Your task to perform on an android device: turn on javascript in the chrome app Image 0: 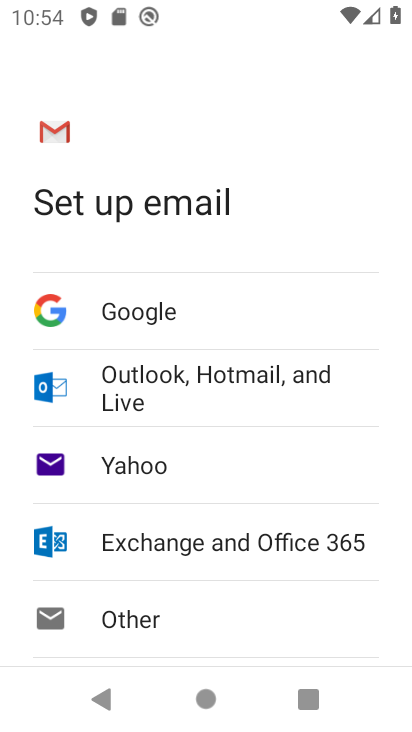
Step 0: press back button
Your task to perform on an android device: turn on javascript in the chrome app Image 1: 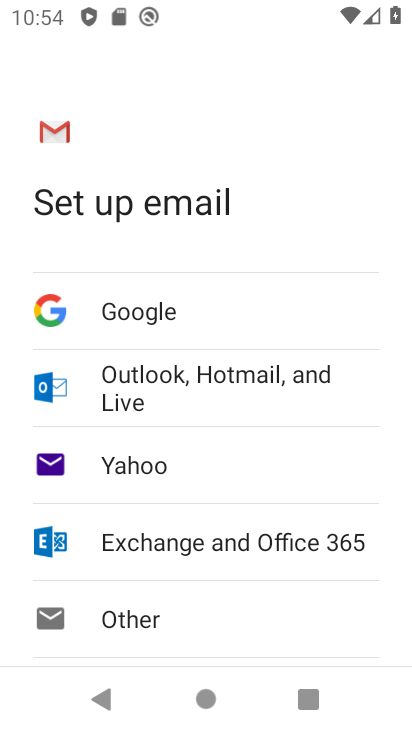
Step 1: press back button
Your task to perform on an android device: turn on javascript in the chrome app Image 2: 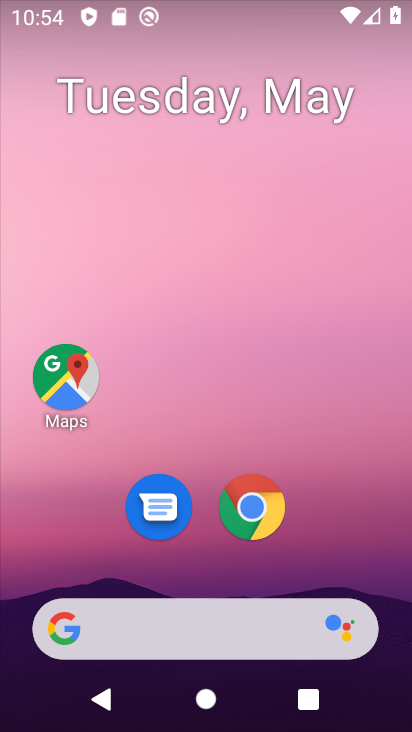
Step 2: drag from (268, 715) to (182, 231)
Your task to perform on an android device: turn on javascript in the chrome app Image 3: 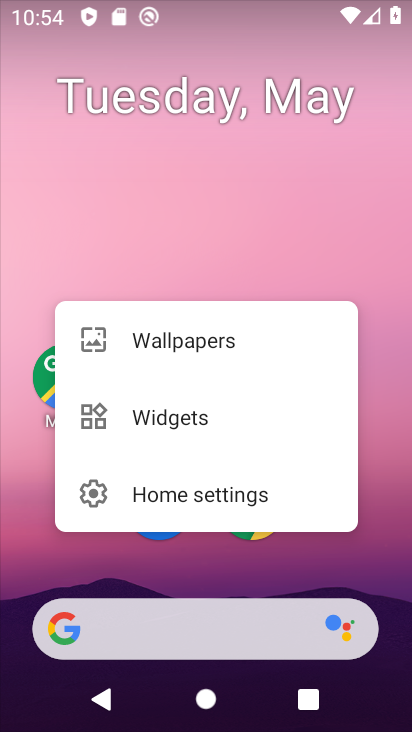
Step 3: click (133, 192)
Your task to perform on an android device: turn on javascript in the chrome app Image 4: 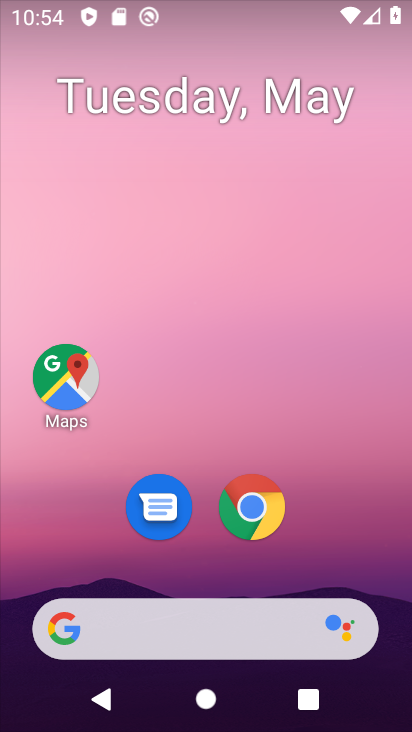
Step 4: drag from (245, 535) to (139, 32)
Your task to perform on an android device: turn on javascript in the chrome app Image 5: 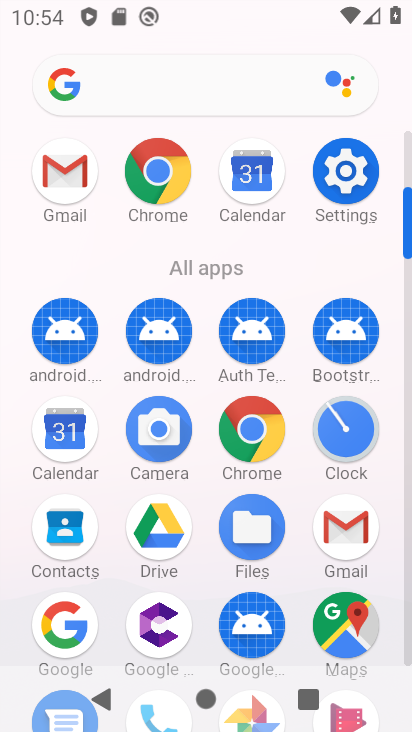
Step 5: click (157, 184)
Your task to perform on an android device: turn on javascript in the chrome app Image 6: 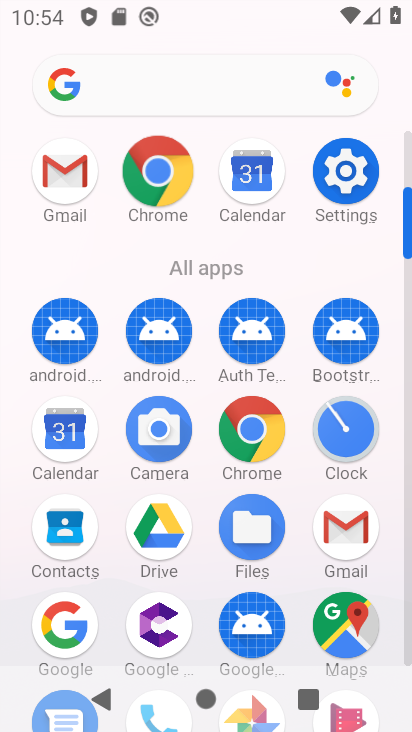
Step 6: click (158, 183)
Your task to perform on an android device: turn on javascript in the chrome app Image 7: 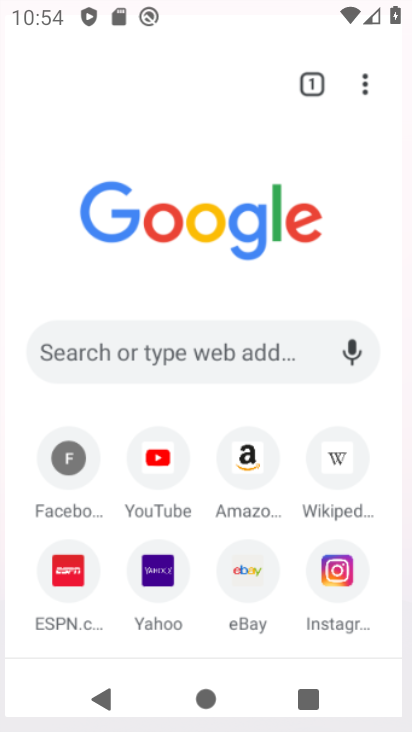
Step 7: click (160, 183)
Your task to perform on an android device: turn on javascript in the chrome app Image 8: 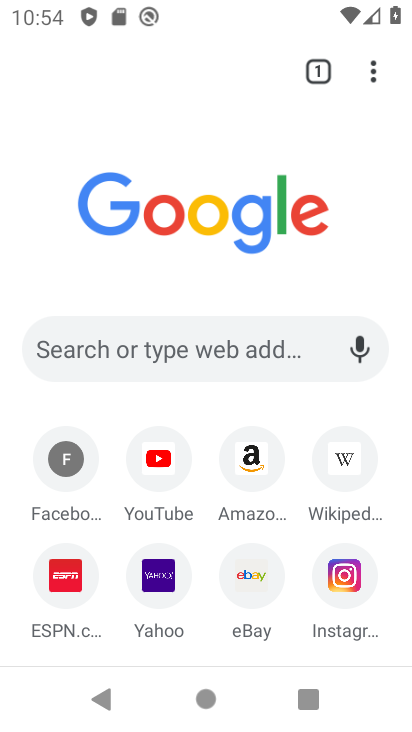
Step 8: drag from (375, 77) to (104, 512)
Your task to perform on an android device: turn on javascript in the chrome app Image 9: 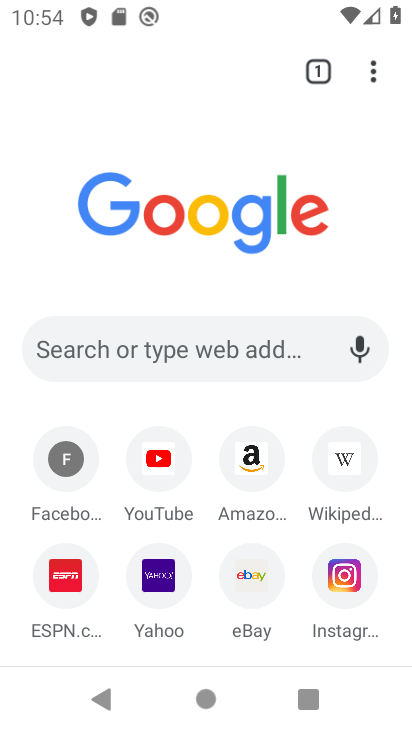
Step 9: click (103, 512)
Your task to perform on an android device: turn on javascript in the chrome app Image 10: 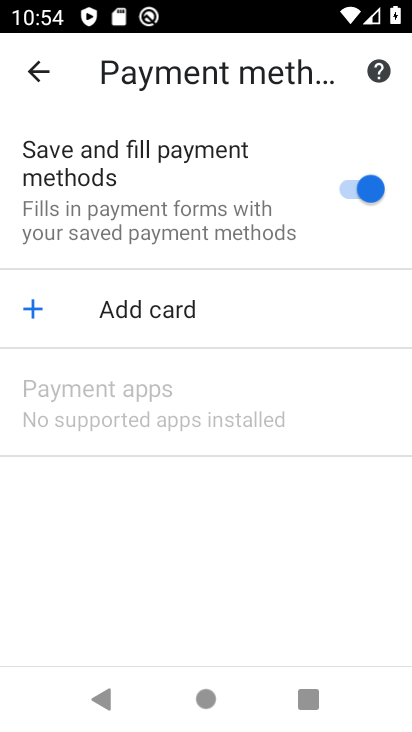
Step 10: click (47, 66)
Your task to perform on an android device: turn on javascript in the chrome app Image 11: 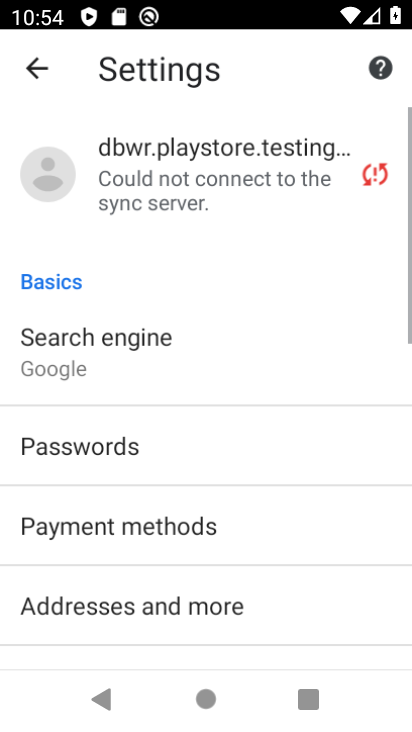
Step 11: click (39, 61)
Your task to perform on an android device: turn on javascript in the chrome app Image 12: 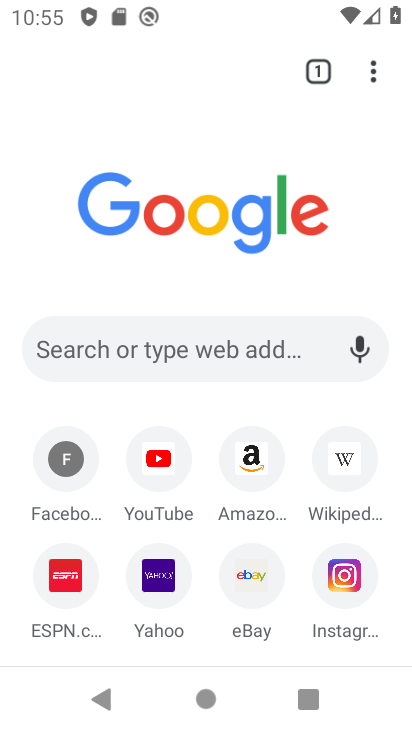
Step 12: drag from (373, 82) to (111, 509)
Your task to perform on an android device: turn on javascript in the chrome app Image 13: 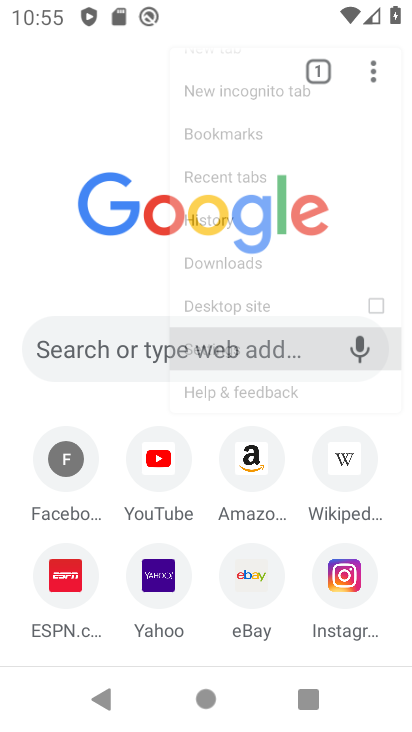
Step 13: click (115, 517)
Your task to perform on an android device: turn on javascript in the chrome app Image 14: 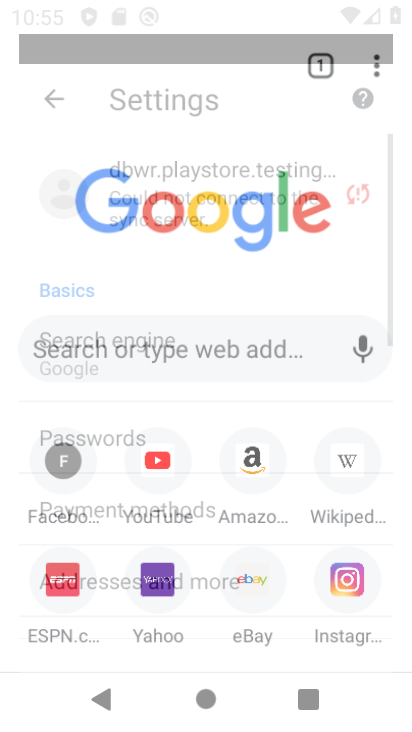
Step 14: click (118, 517)
Your task to perform on an android device: turn on javascript in the chrome app Image 15: 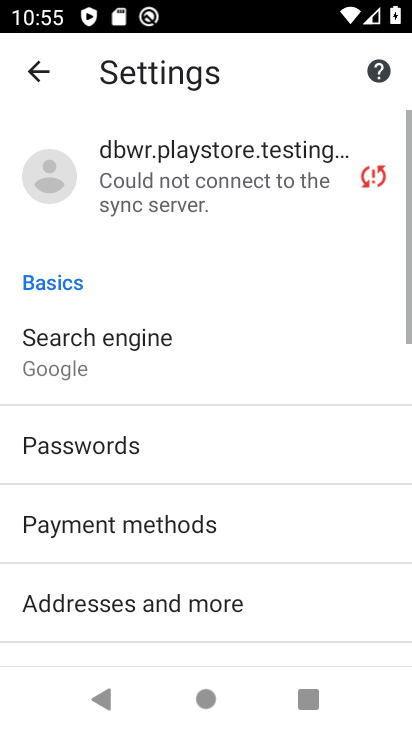
Step 15: click (118, 517)
Your task to perform on an android device: turn on javascript in the chrome app Image 16: 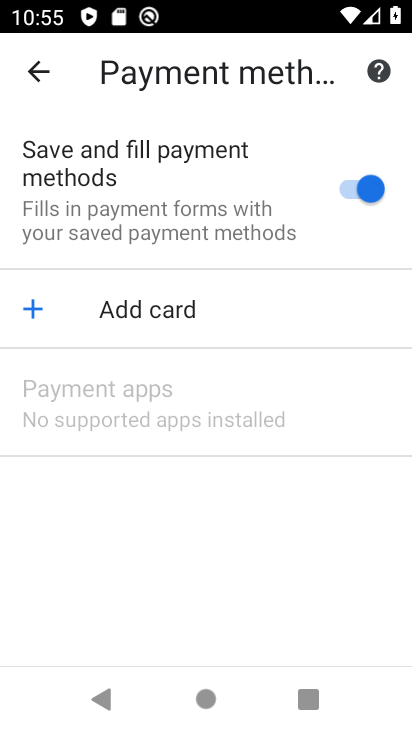
Step 16: click (38, 72)
Your task to perform on an android device: turn on javascript in the chrome app Image 17: 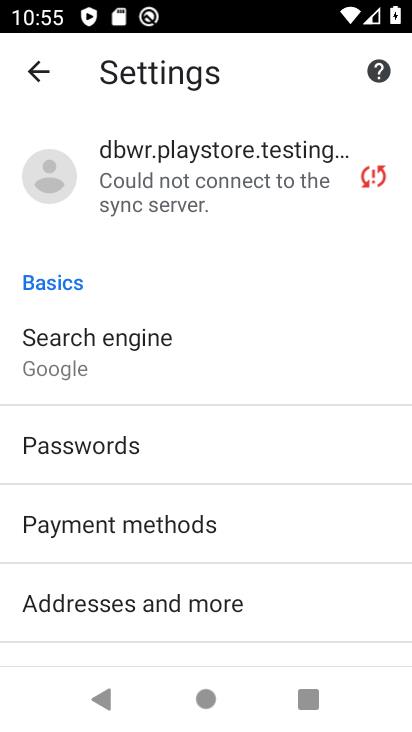
Step 17: click (148, 210)
Your task to perform on an android device: turn on javascript in the chrome app Image 18: 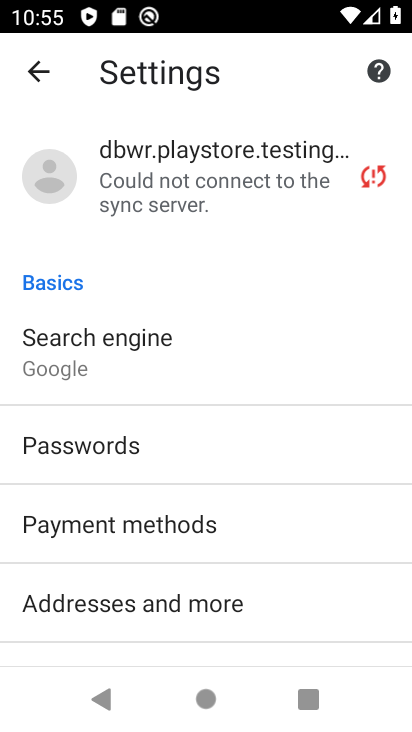
Step 18: drag from (209, 464) to (234, 151)
Your task to perform on an android device: turn on javascript in the chrome app Image 19: 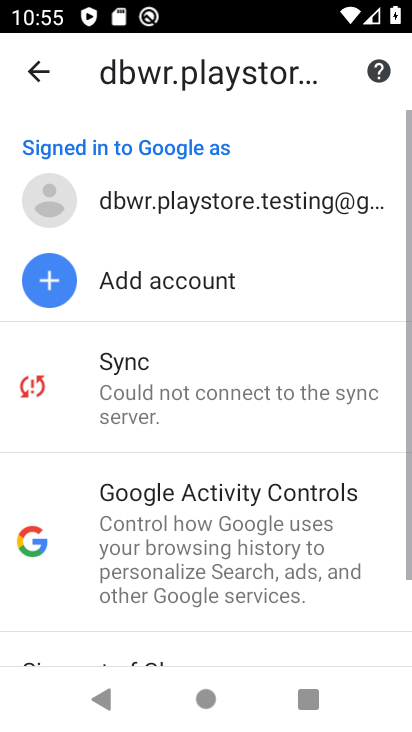
Step 19: drag from (178, 427) to (178, 214)
Your task to perform on an android device: turn on javascript in the chrome app Image 20: 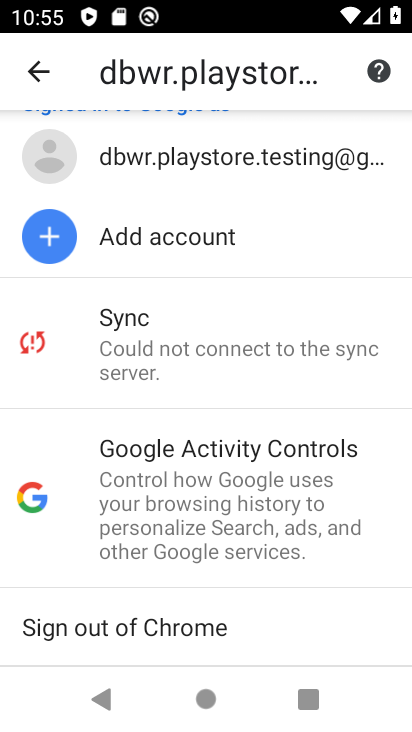
Step 20: drag from (174, 512) to (104, 179)
Your task to perform on an android device: turn on javascript in the chrome app Image 21: 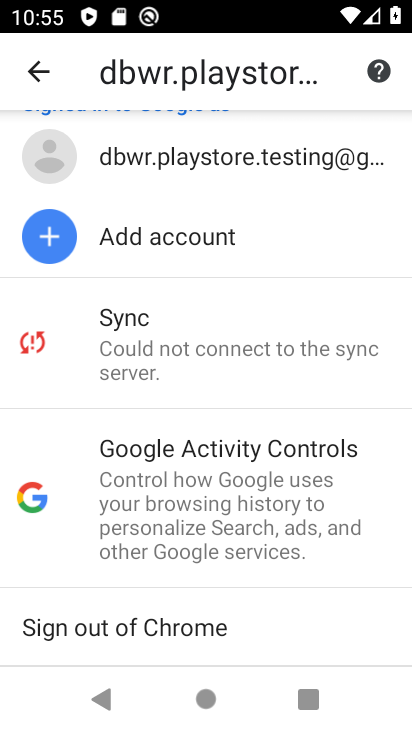
Step 21: click (33, 73)
Your task to perform on an android device: turn on javascript in the chrome app Image 22: 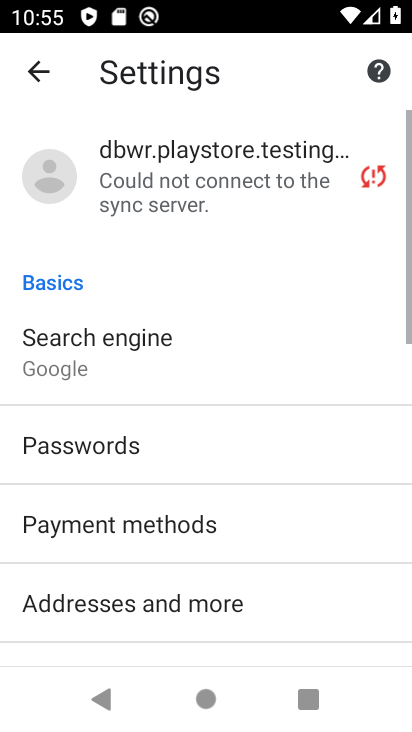
Step 22: drag from (138, 435) to (118, 198)
Your task to perform on an android device: turn on javascript in the chrome app Image 23: 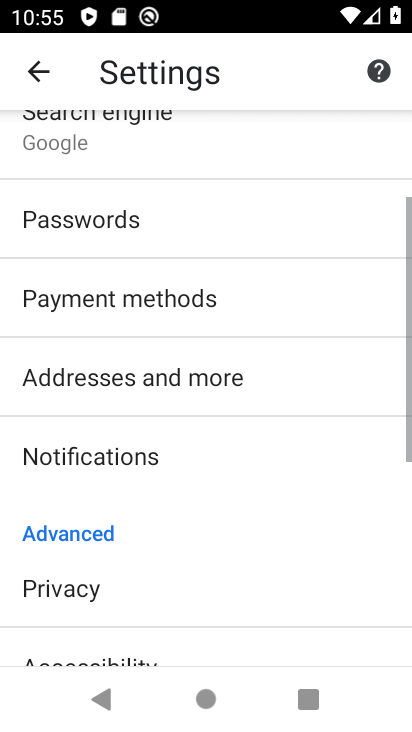
Step 23: drag from (167, 451) to (184, 199)
Your task to perform on an android device: turn on javascript in the chrome app Image 24: 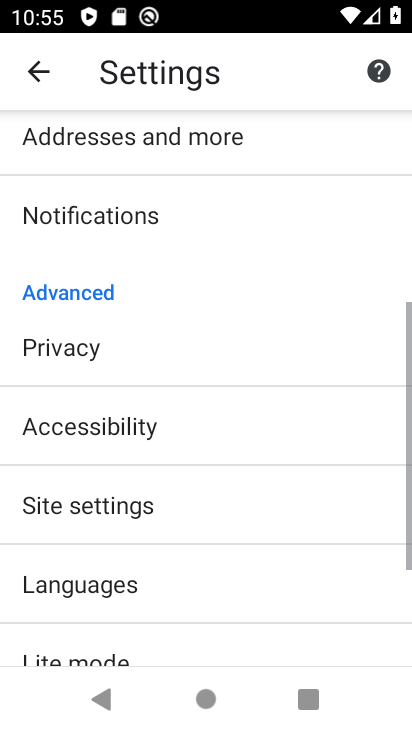
Step 24: drag from (251, 465) to (261, 216)
Your task to perform on an android device: turn on javascript in the chrome app Image 25: 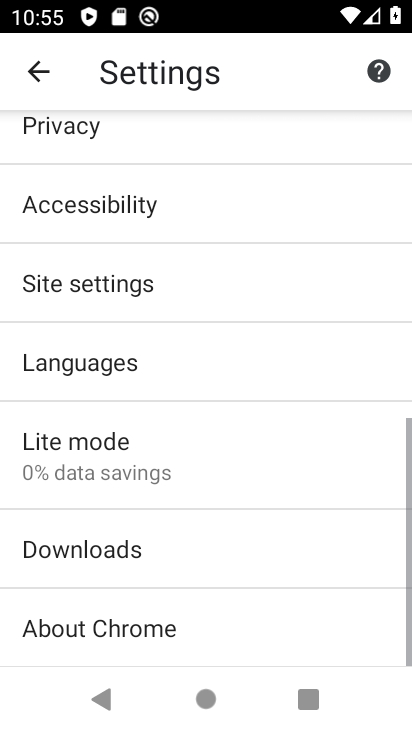
Step 25: drag from (270, 500) to (261, 298)
Your task to perform on an android device: turn on javascript in the chrome app Image 26: 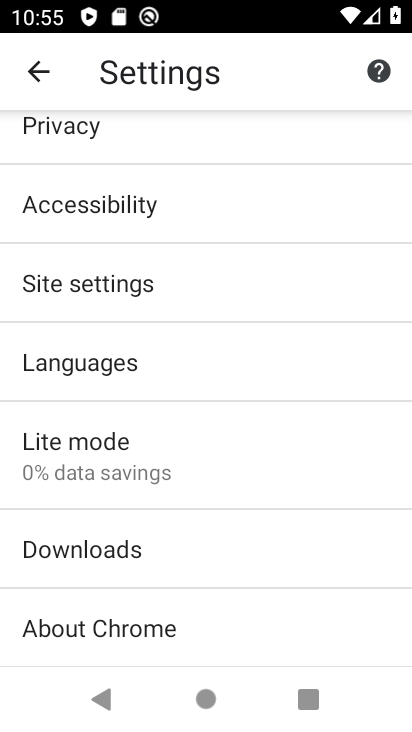
Step 26: click (60, 439)
Your task to perform on an android device: turn on javascript in the chrome app Image 27: 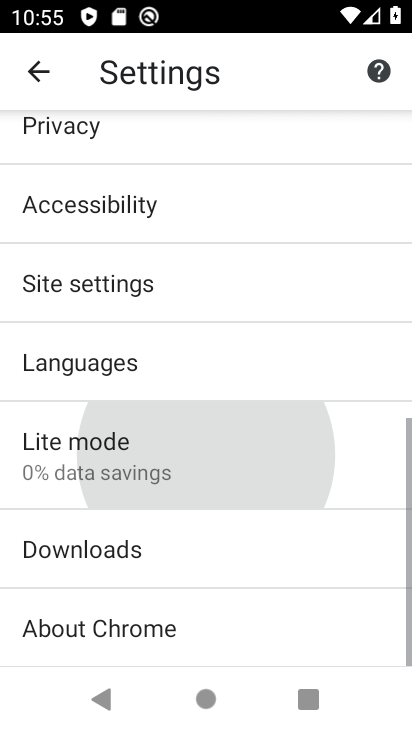
Step 27: click (60, 439)
Your task to perform on an android device: turn on javascript in the chrome app Image 28: 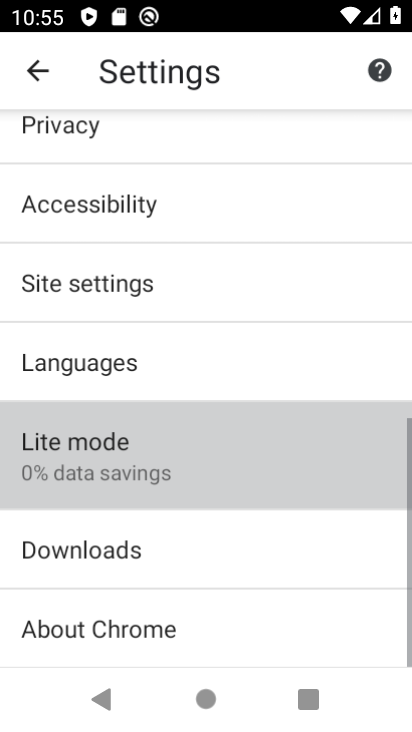
Step 28: click (60, 439)
Your task to perform on an android device: turn on javascript in the chrome app Image 29: 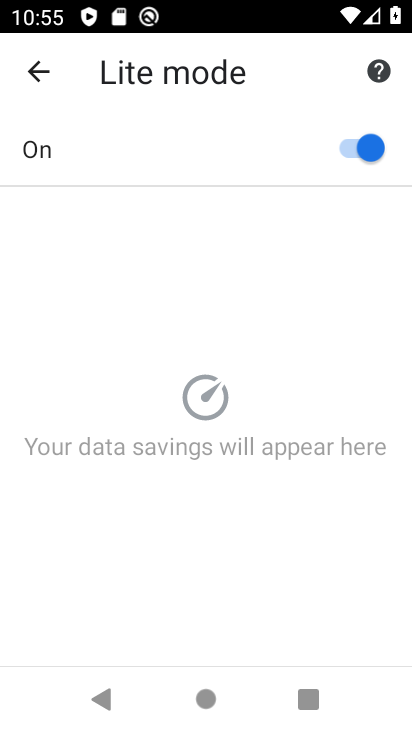
Step 29: click (29, 75)
Your task to perform on an android device: turn on javascript in the chrome app Image 30: 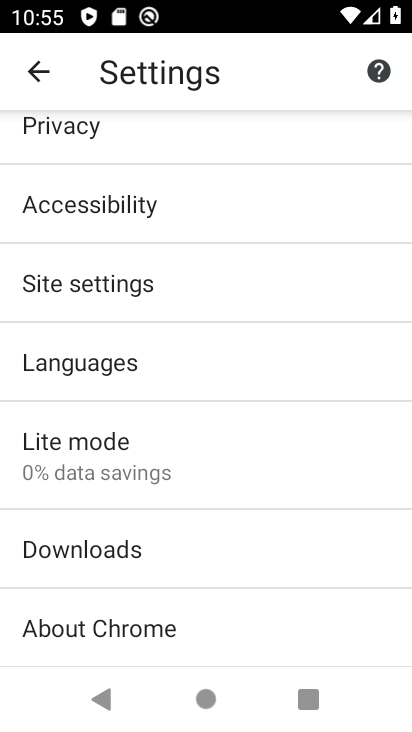
Step 30: click (69, 279)
Your task to perform on an android device: turn on javascript in the chrome app Image 31: 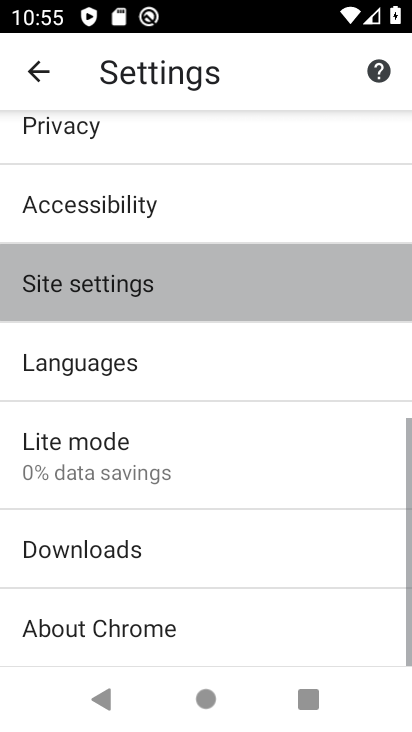
Step 31: click (69, 279)
Your task to perform on an android device: turn on javascript in the chrome app Image 32: 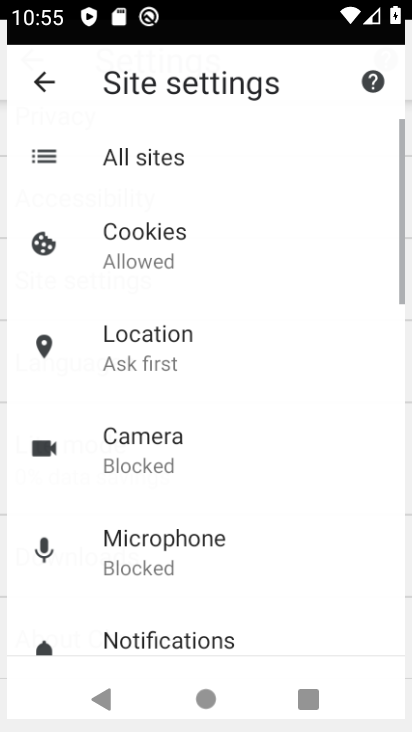
Step 32: click (69, 279)
Your task to perform on an android device: turn on javascript in the chrome app Image 33: 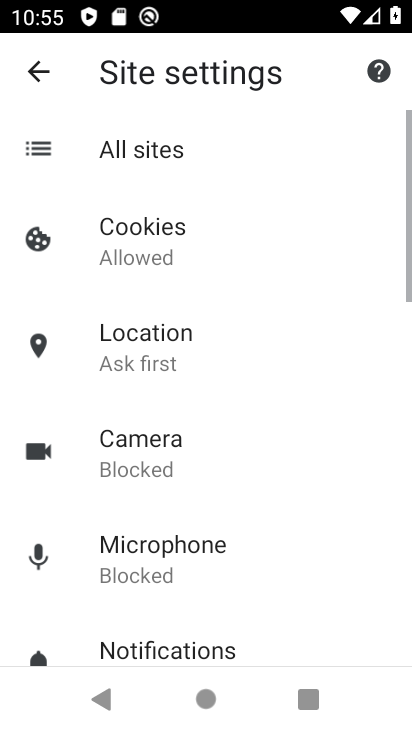
Step 33: click (73, 282)
Your task to perform on an android device: turn on javascript in the chrome app Image 34: 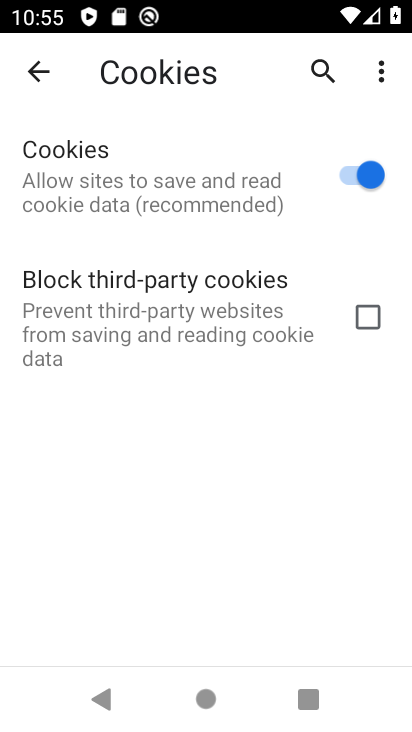
Step 34: click (38, 81)
Your task to perform on an android device: turn on javascript in the chrome app Image 35: 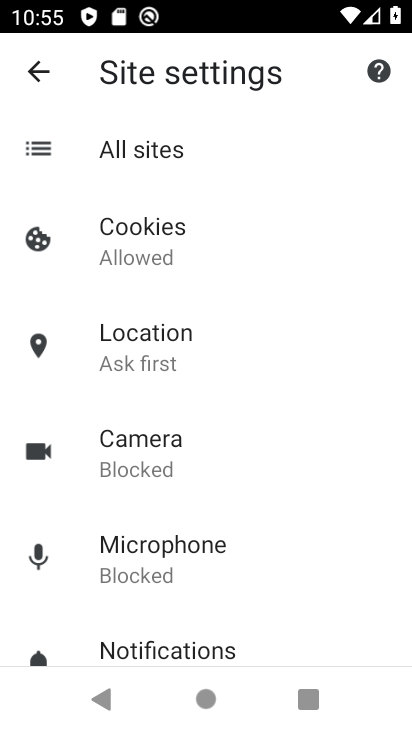
Step 35: drag from (139, 627) to (120, 202)
Your task to perform on an android device: turn on javascript in the chrome app Image 36: 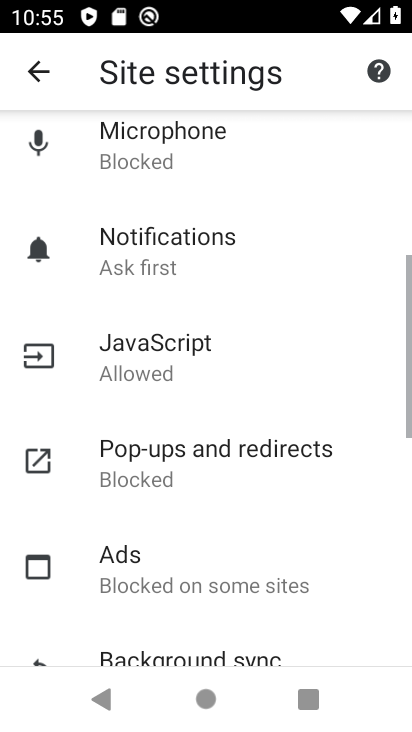
Step 36: drag from (126, 437) to (144, 131)
Your task to perform on an android device: turn on javascript in the chrome app Image 37: 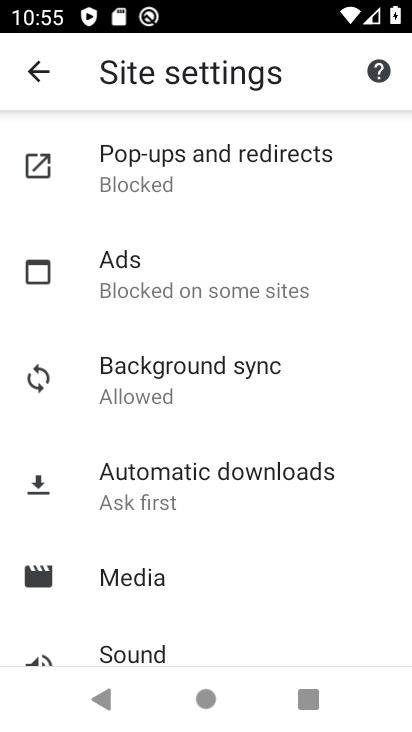
Step 37: drag from (145, 201) to (145, 521)
Your task to perform on an android device: turn on javascript in the chrome app Image 38: 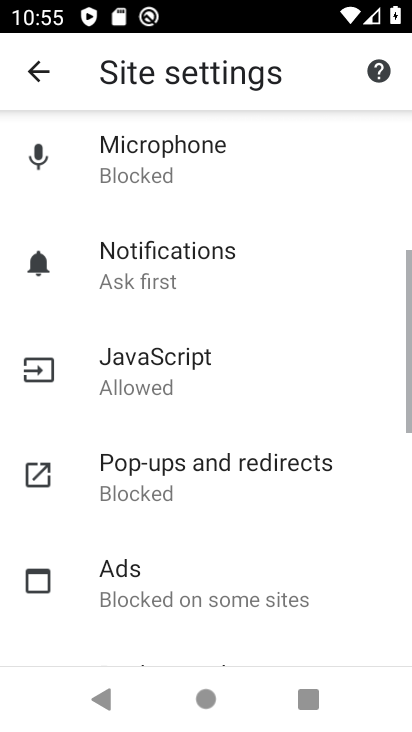
Step 38: click (135, 370)
Your task to perform on an android device: turn on javascript in the chrome app Image 39: 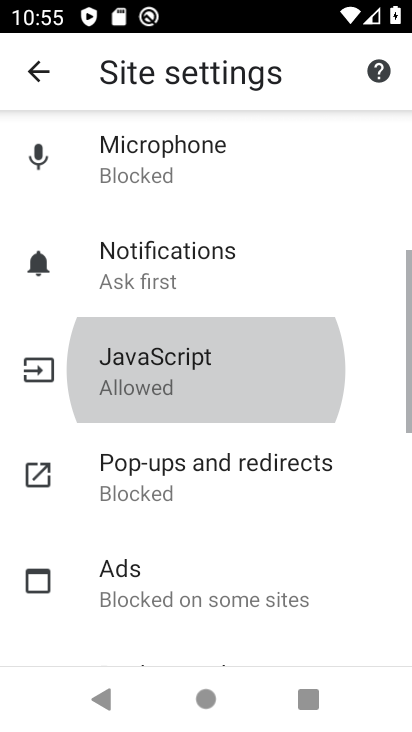
Step 39: click (135, 370)
Your task to perform on an android device: turn on javascript in the chrome app Image 40: 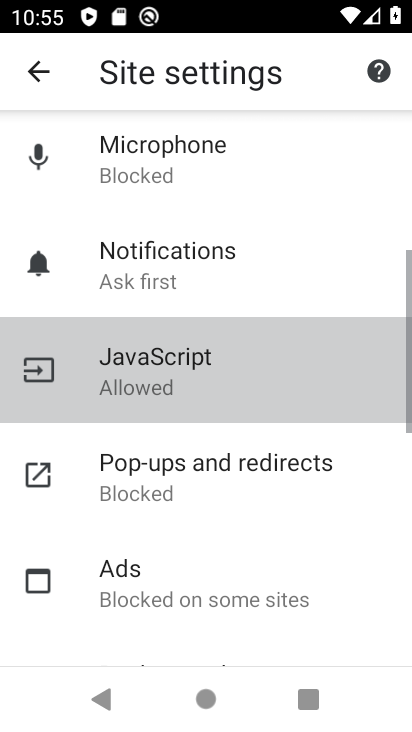
Step 40: click (135, 370)
Your task to perform on an android device: turn on javascript in the chrome app Image 41: 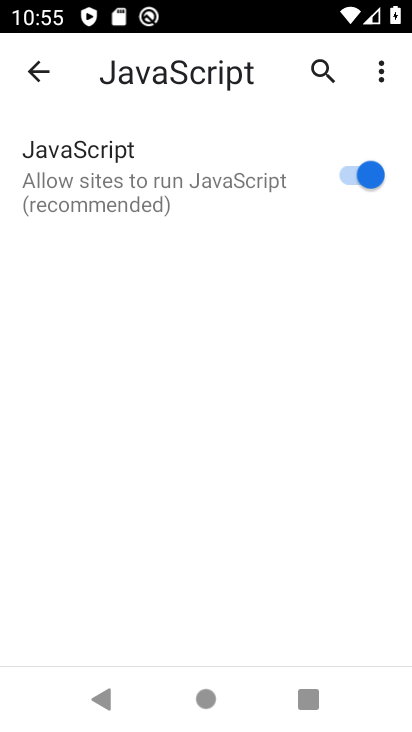
Step 41: click (135, 370)
Your task to perform on an android device: turn on javascript in the chrome app Image 42: 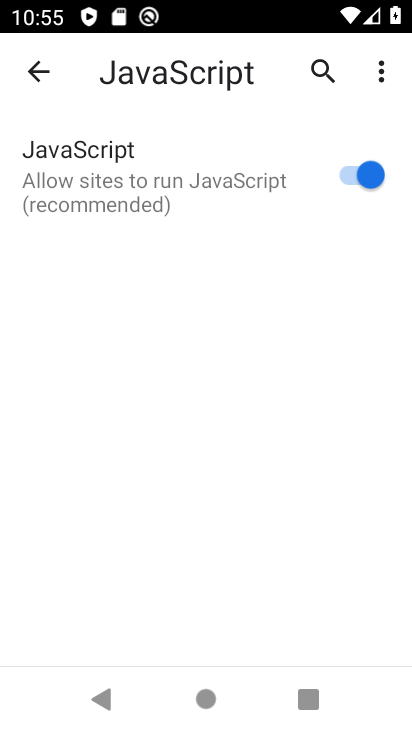
Step 42: task complete